Your task to perform on an android device: Open the phone app and click the voicemail tab. Image 0: 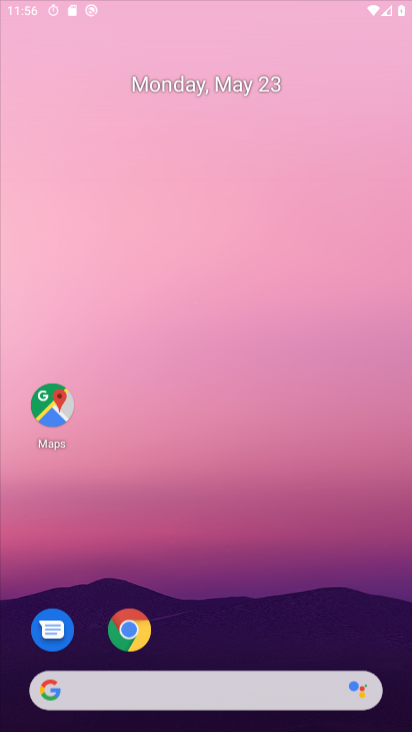
Step 0: click (299, 197)
Your task to perform on an android device: Open the phone app and click the voicemail tab. Image 1: 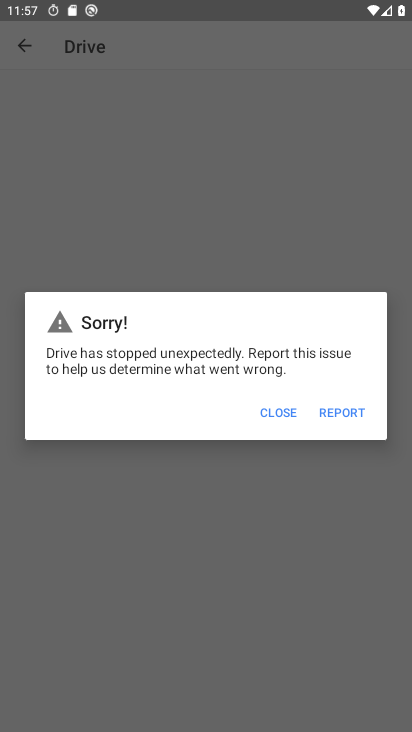
Step 1: press home button
Your task to perform on an android device: Open the phone app and click the voicemail tab. Image 2: 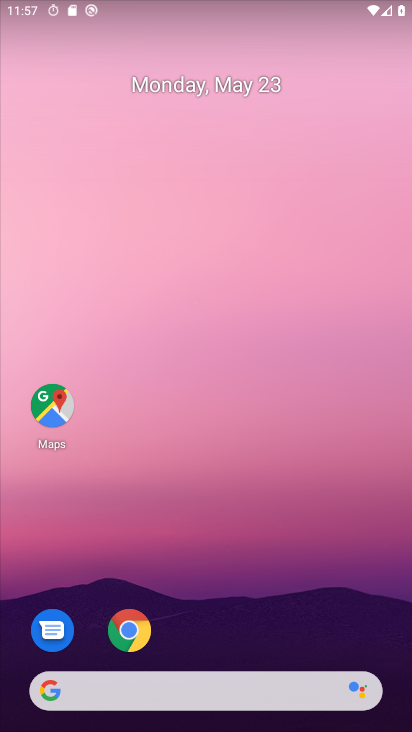
Step 2: drag from (203, 629) to (300, 60)
Your task to perform on an android device: Open the phone app and click the voicemail tab. Image 3: 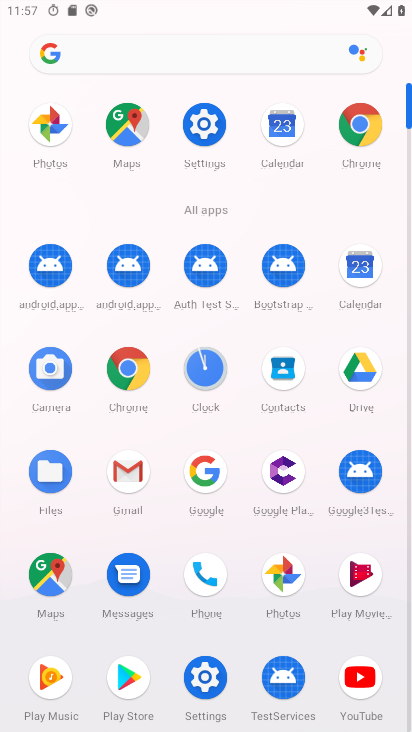
Step 3: click (206, 594)
Your task to perform on an android device: Open the phone app and click the voicemail tab. Image 4: 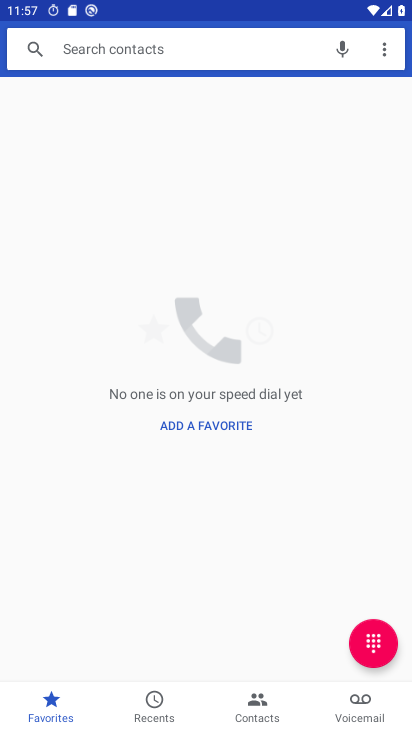
Step 4: click (358, 707)
Your task to perform on an android device: Open the phone app and click the voicemail tab. Image 5: 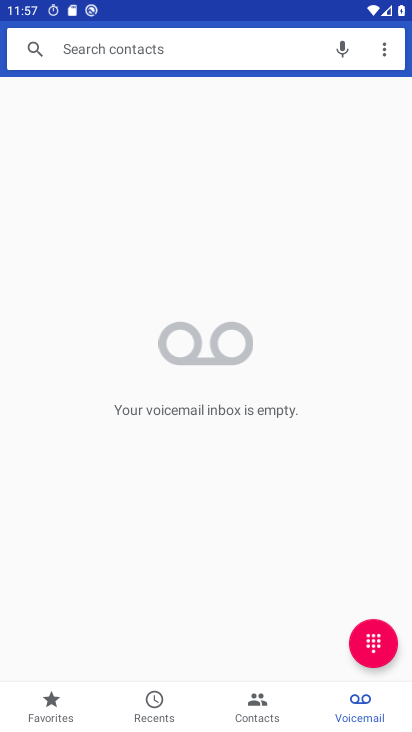
Step 5: task complete